Your task to perform on an android device: What's the weather today? Image 0: 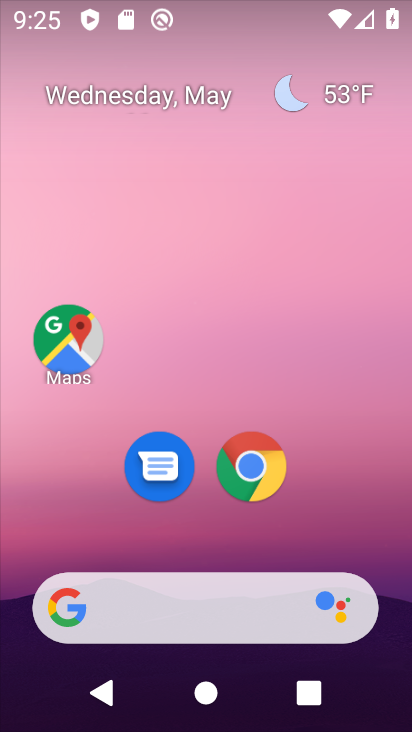
Step 0: drag from (186, 567) to (309, 8)
Your task to perform on an android device: What's the weather today? Image 1: 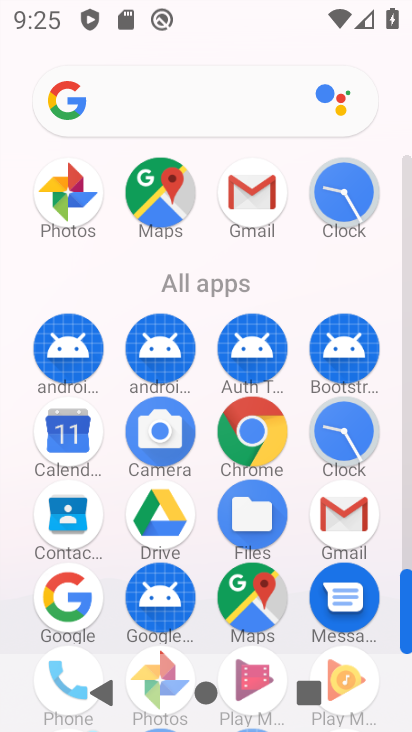
Step 1: drag from (207, 634) to (215, 241)
Your task to perform on an android device: What's the weather today? Image 2: 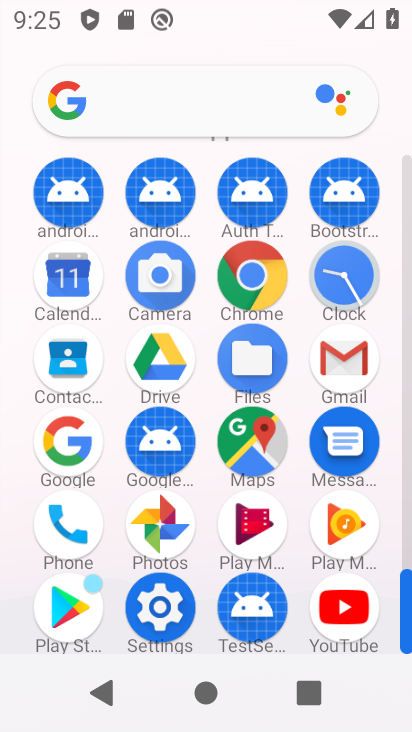
Step 2: click (225, 97)
Your task to perform on an android device: What's the weather today? Image 3: 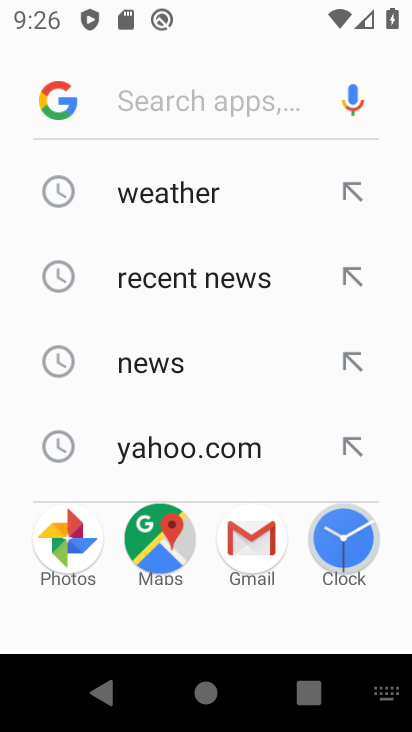
Step 3: click (167, 194)
Your task to perform on an android device: What's the weather today? Image 4: 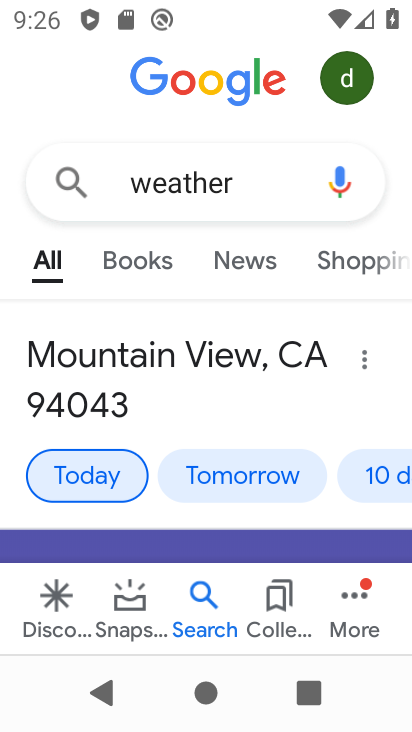
Step 4: task complete